Your task to perform on an android device: toggle translation in the chrome app Image 0: 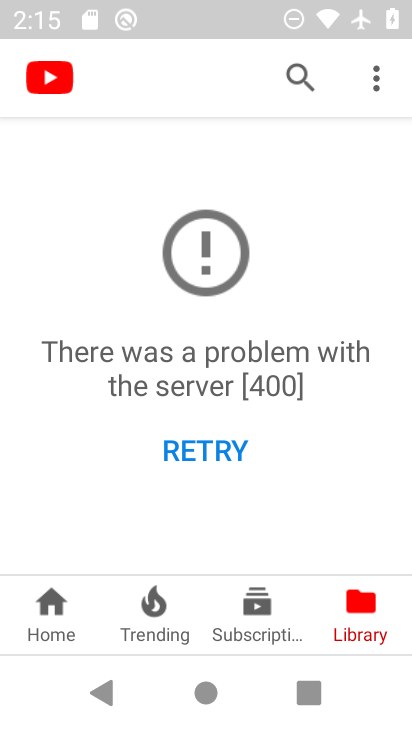
Step 0: press home button
Your task to perform on an android device: toggle translation in the chrome app Image 1: 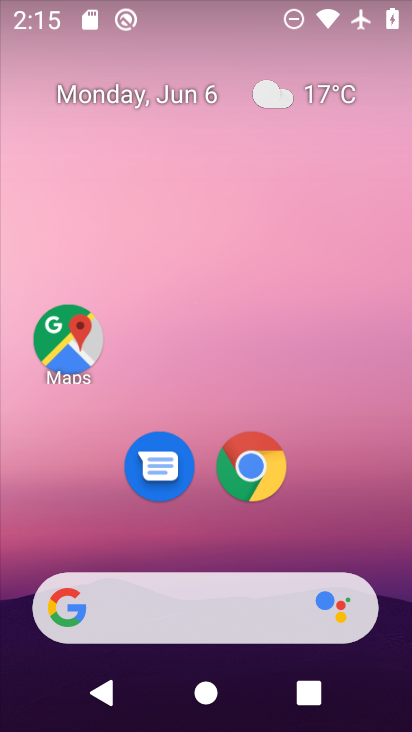
Step 1: click (236, 429)
Your task to perform on an android device: toggle translation in the chrome app Image 2: 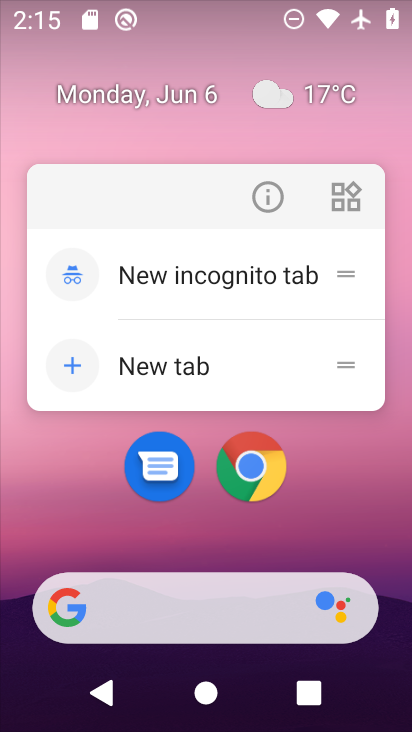
Step 2: click (238, 445)
Your task to perform on an android device: toggle translation in the chrome app Image 3: 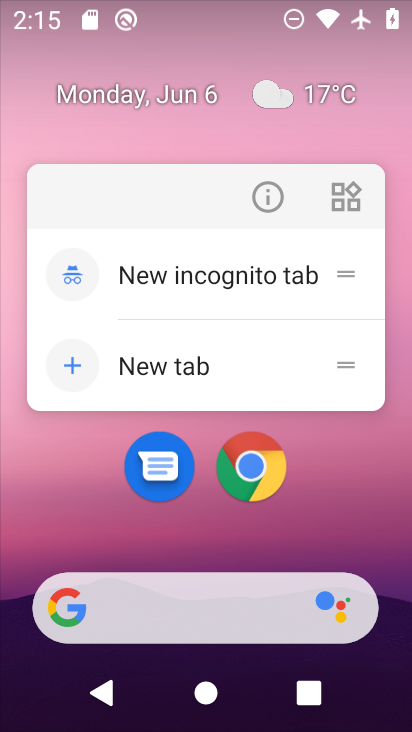
Step 3: click (241, 446)
Your task to perform on an android device: toggle translation in the chrome app Image 4: 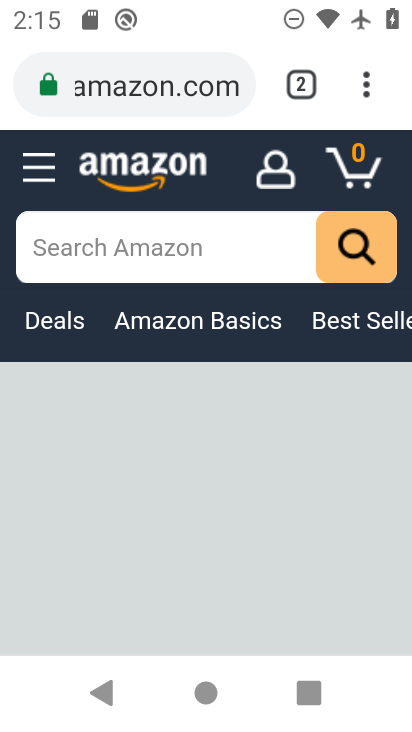
Step 4: drag from (361, 80) to (213, 517)
Your task to perform on an android device: toggle translation in the chrome app Image 5: 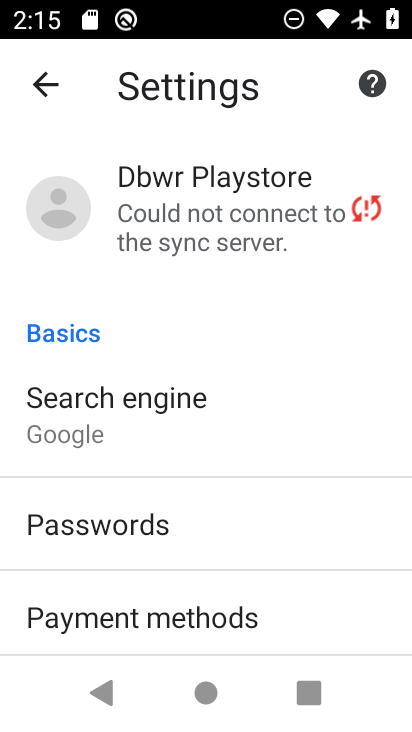
Step 5: drag from (279, 417) to (323, 78)
Your task to perform on an android device: toggle translation in the chrome app Image 6: 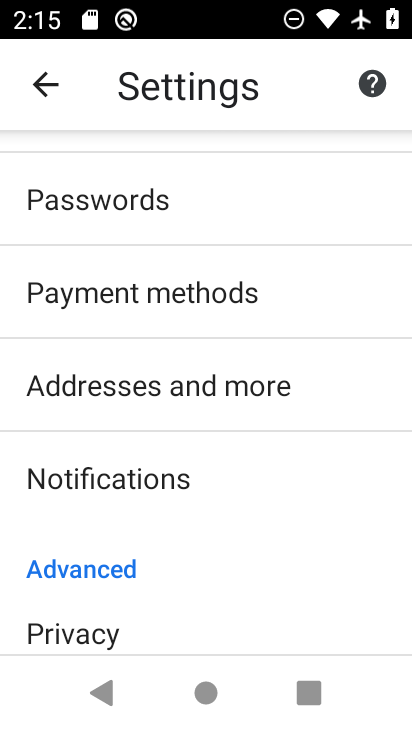
Step 6: drag from (276, 574) to (296, 223)
Your task to perform on an android device: toggle translation in the chrome app Image 7: 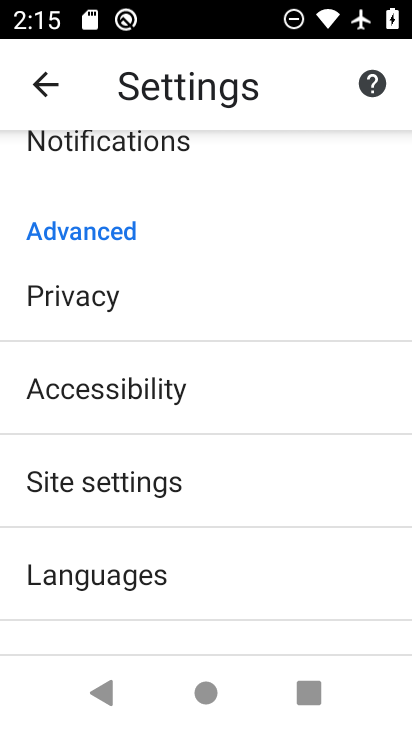
Step 7: click (139, 592)
Your task to perform on an android device: toggle translation in the chrome app Image 8: 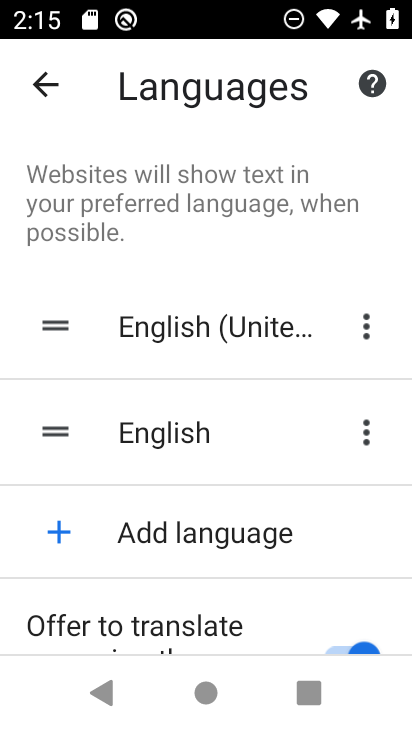
Step 8: drag from (315, 615) to (365, 412)
Your task to perform on an android device: toggle translation in the chrome app Image 9: 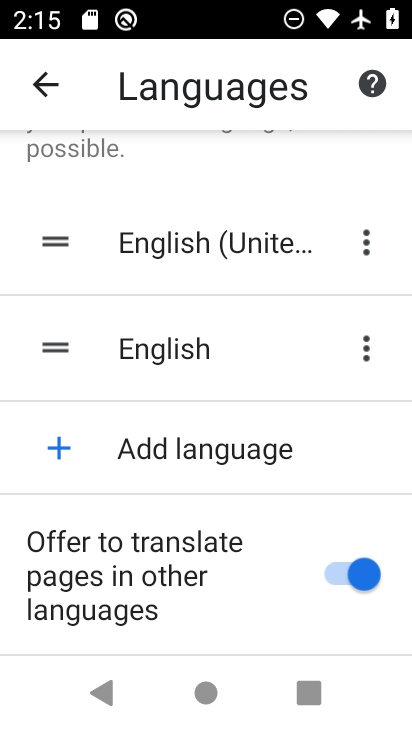
Step 9: click (345, 574)
Your task to perform on an android device: toggle translation in the chrome app Image 10: 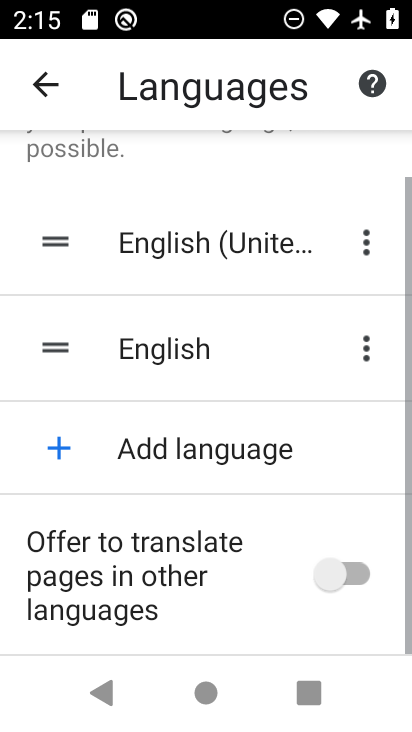
Step 10: task complete